Your task to perform on an android device: uninstall "Roku - Official Remote Control" Image 0: 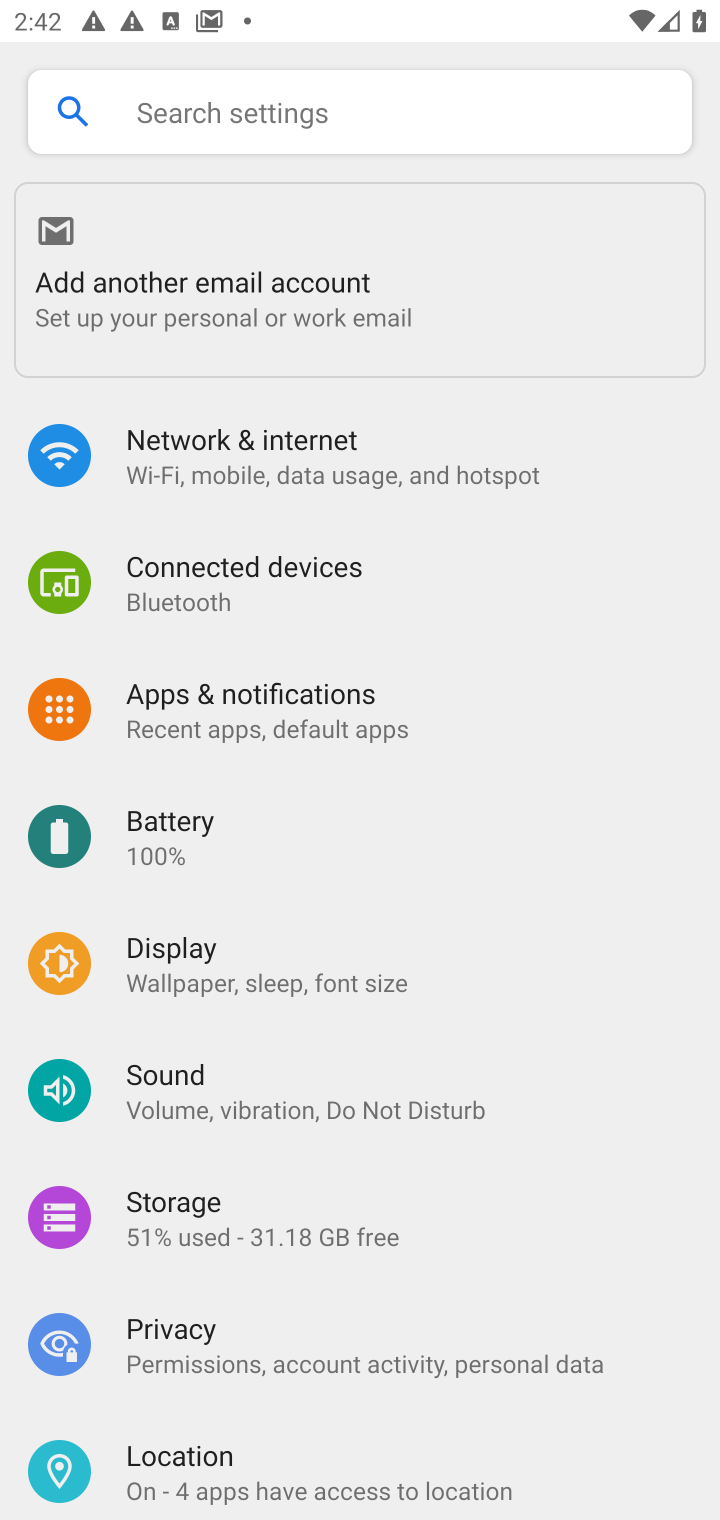
Step 0: press home button
Your task to perform on an android device: uninstall "Roku - Official Remote Control" Image 1: 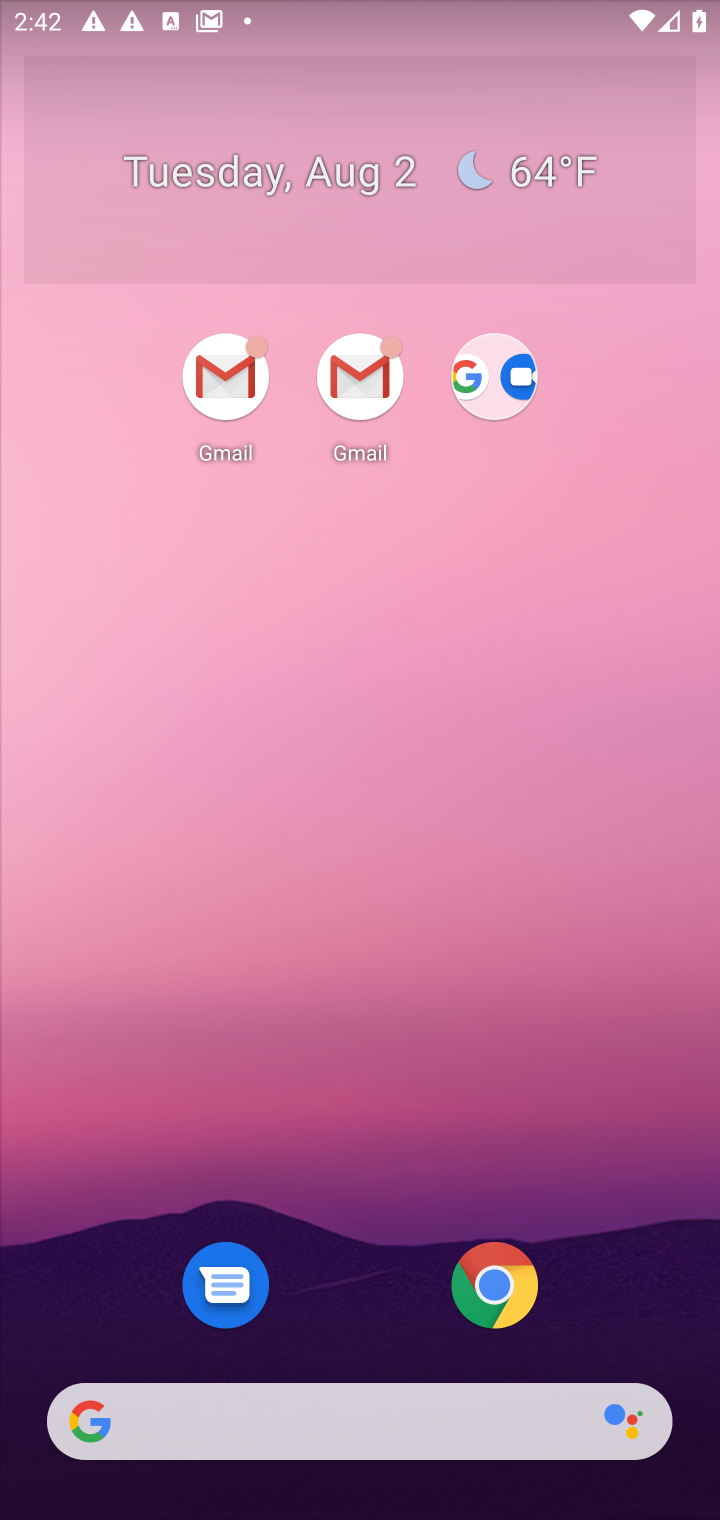
Step 1: drag from (565, 1106) to (552, 94)
Your task to perform on an android device: uninstall "Roku - Official Remote Control" Image 2: 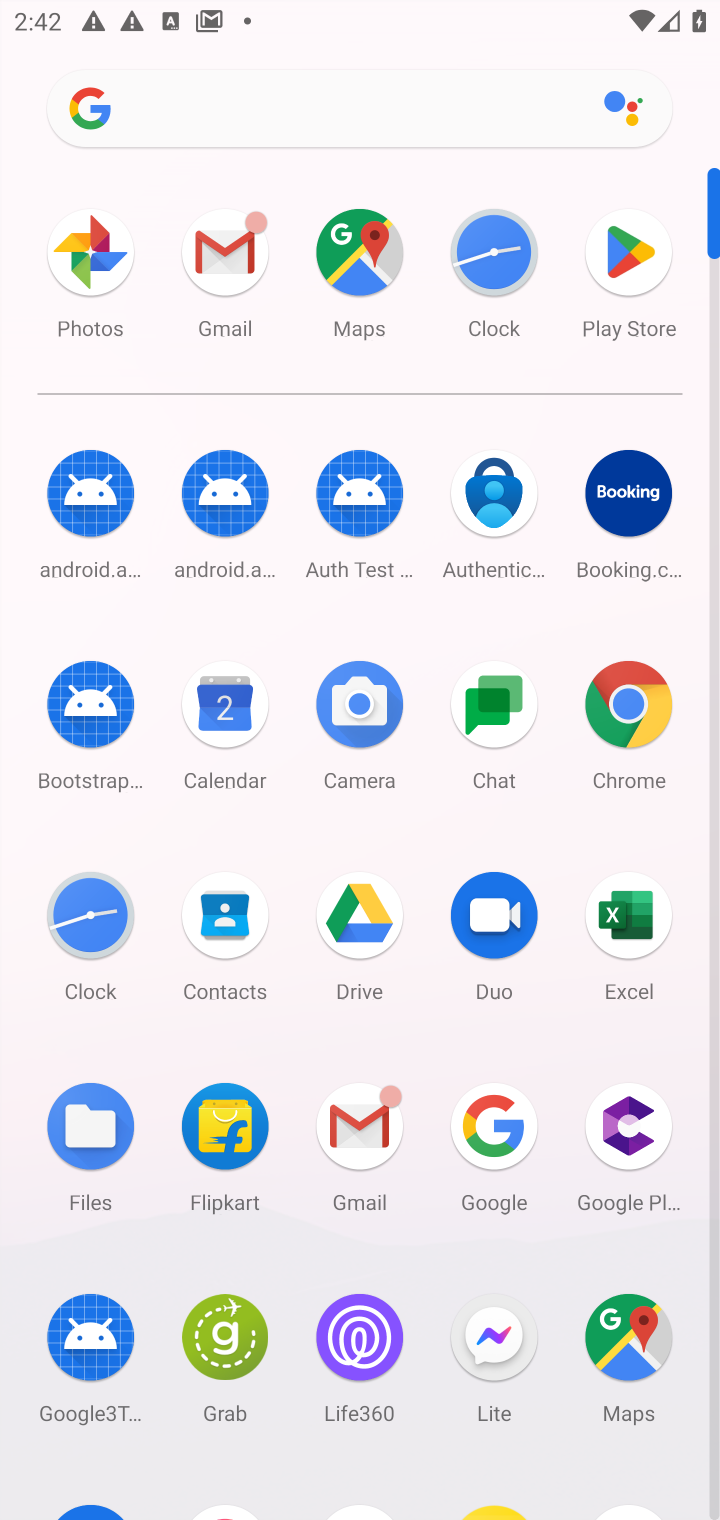
Step 2: drag from (539, 1239) to (652, 355)
Your task to perform on an android device: uninstall "Roku - Official Remote Control" Image 3: 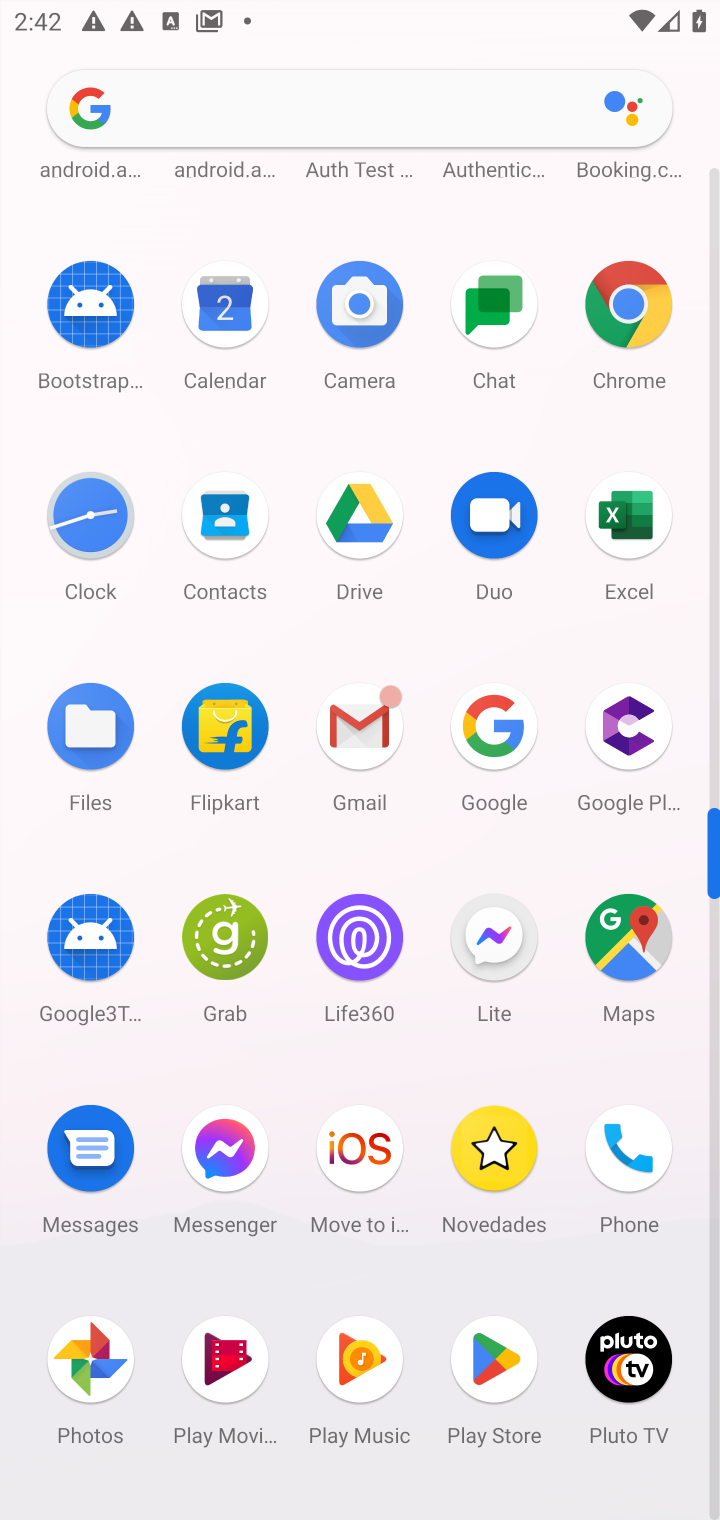
Step 3: click (459, 1363)
Your task to perform on an android device: uninstall "Roku - Official Remote Control" Image 4: 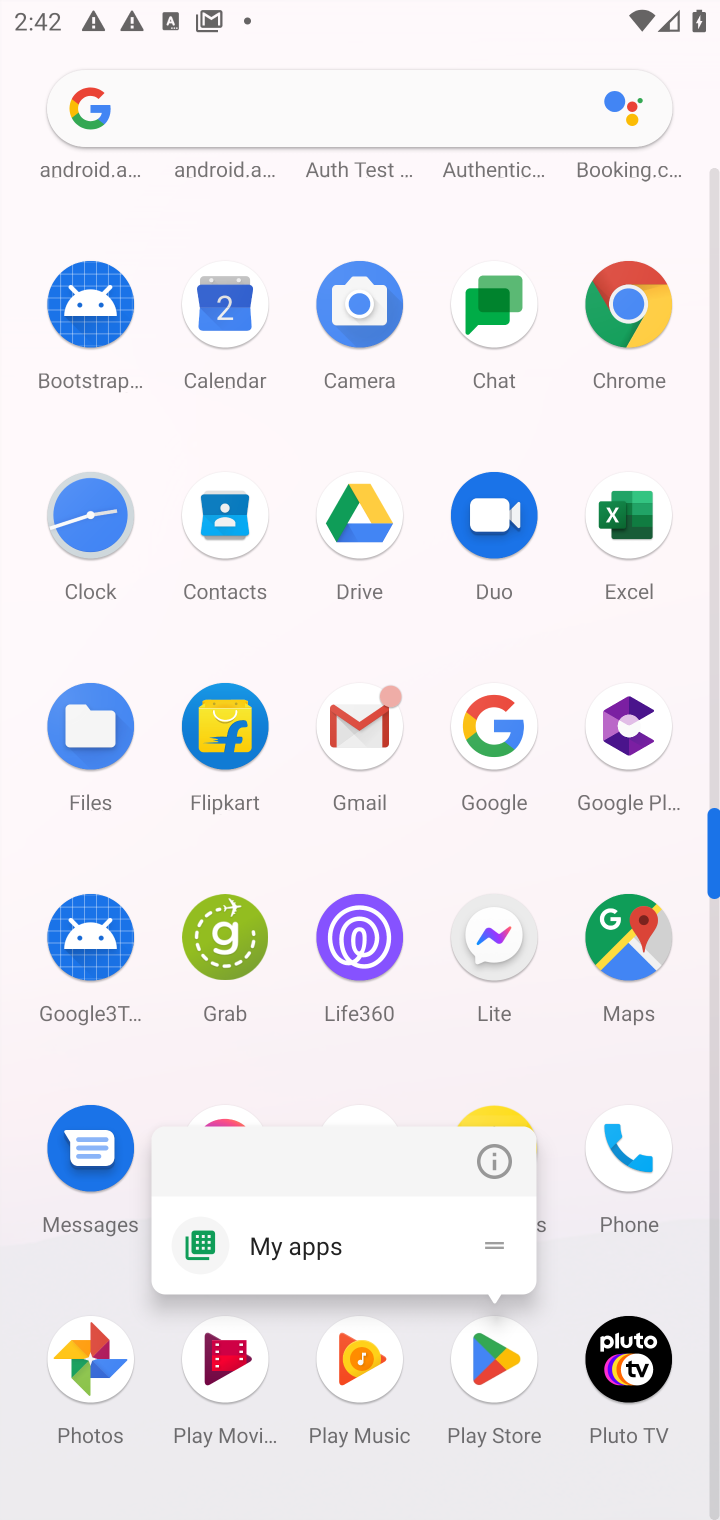
Step 4: click (481, 1365)
Your task to perform on an android device: uninstall "Roku - Official Remote Control" Image 5: 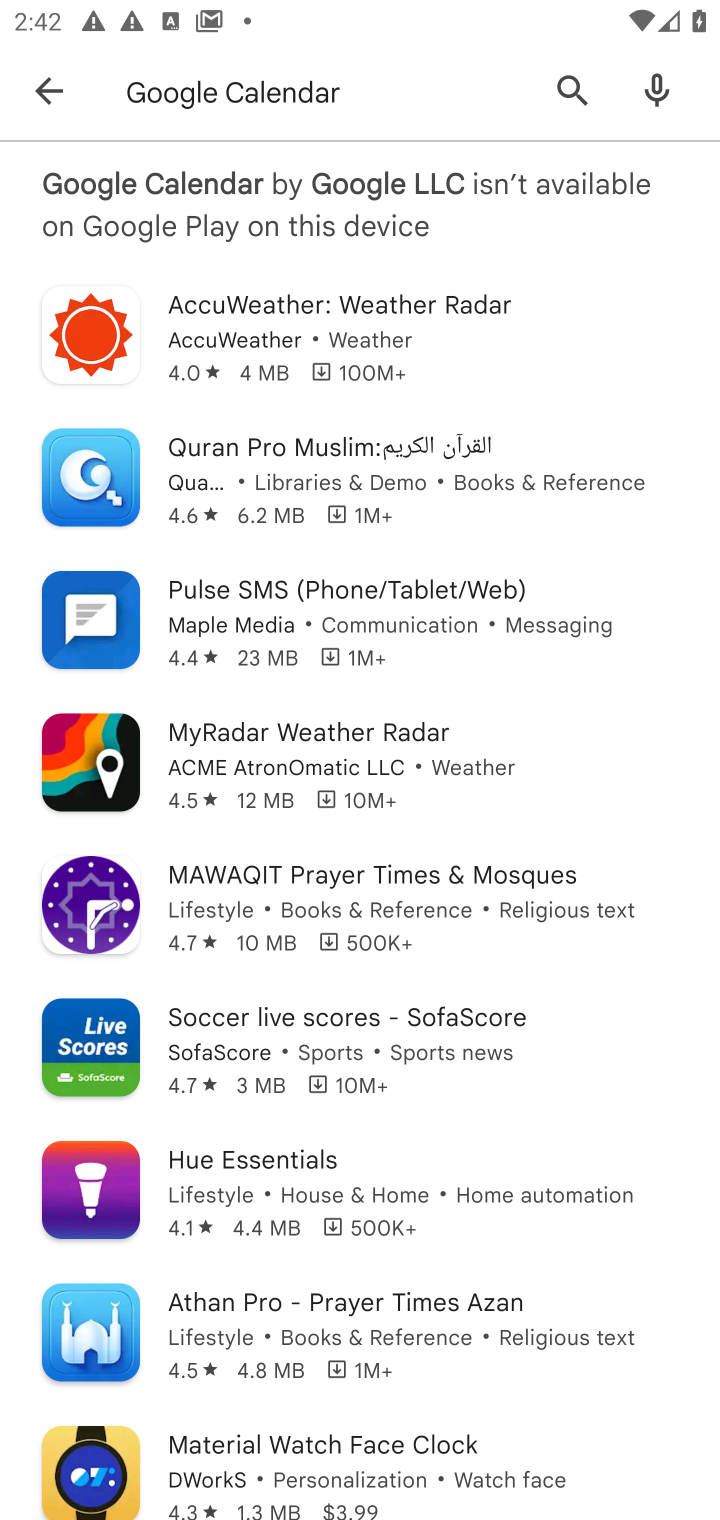
Step 5: click (308, 102)
Your task to perform on an android device: uninstall "Roku - Official Remote Control" Image 6: 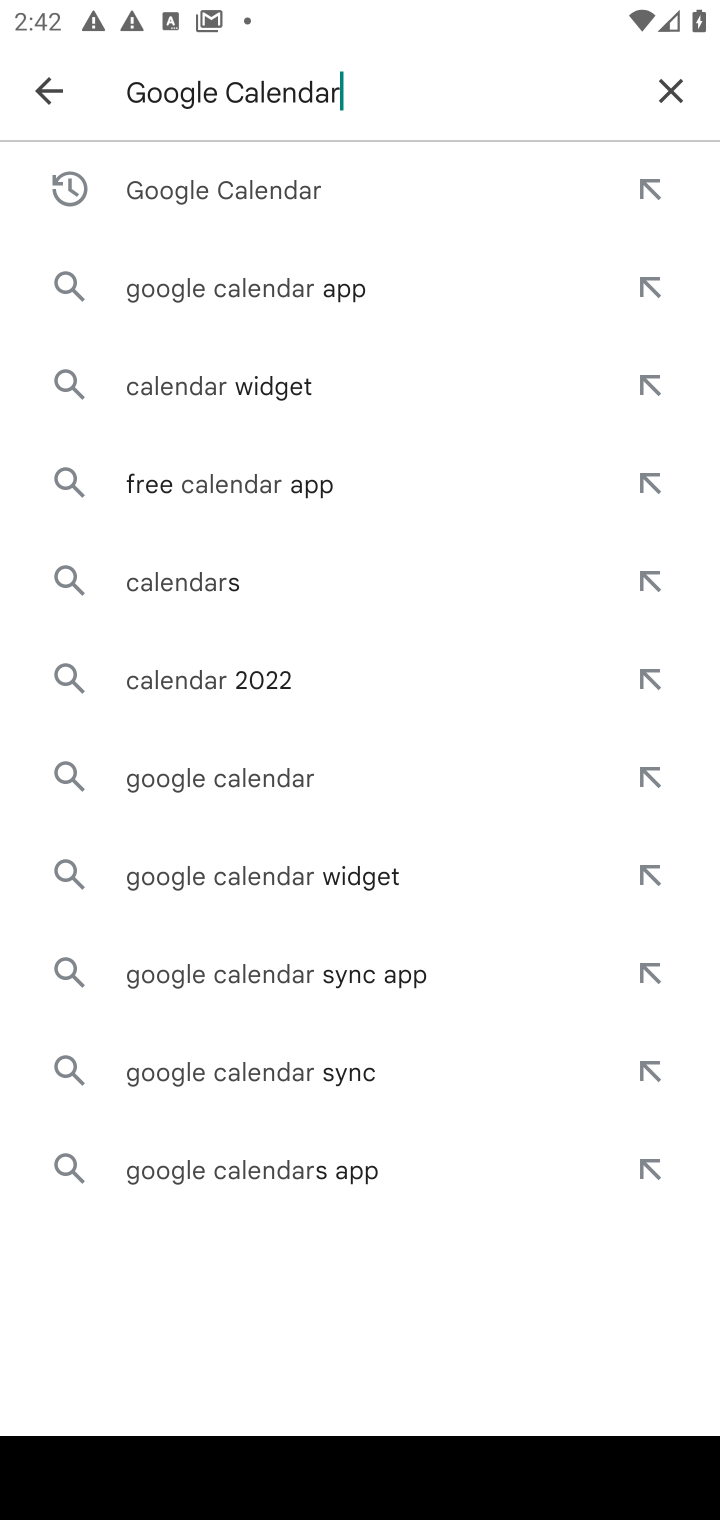
Step 6: click (676, 74)
Your task to perform on an android device: uninstall "Roku - Official Remote Control" Image 7: 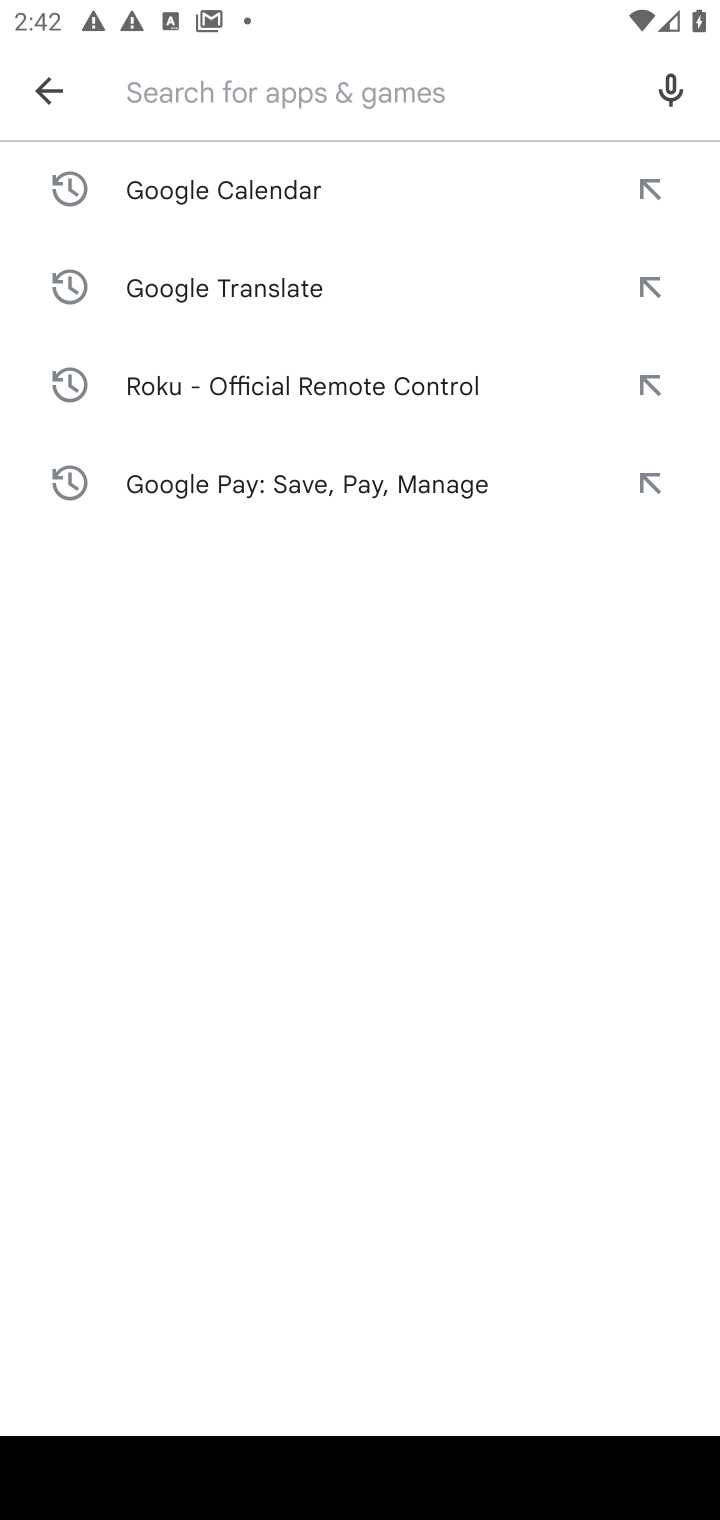
Step 7: type "Roku - Official Remote Control"
Your task to perform on an android device: uninstall "Roku - Official Remote Control" Image 8: 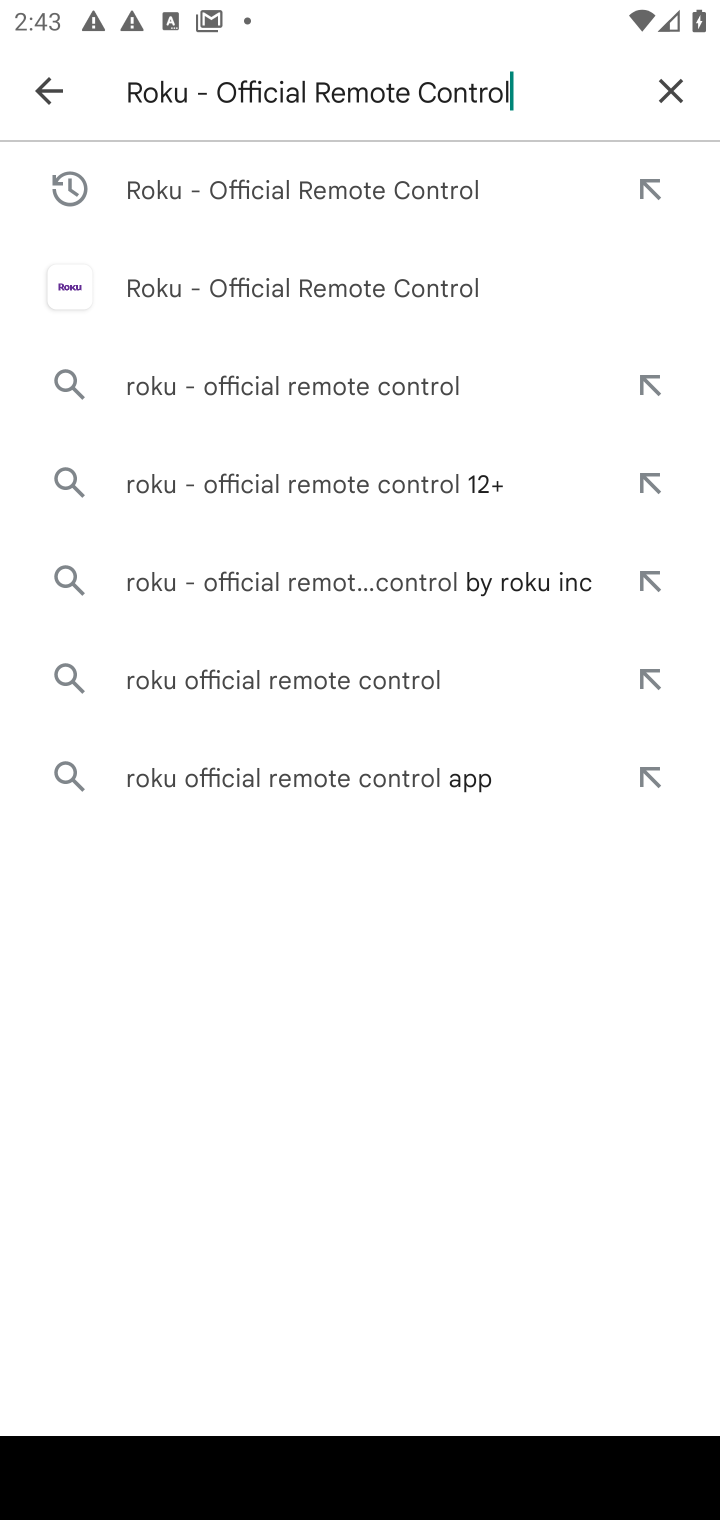
Step 8: press enter
Your task to perform on an android device: uninstall "Roku - Official Remote Control" Image 9: 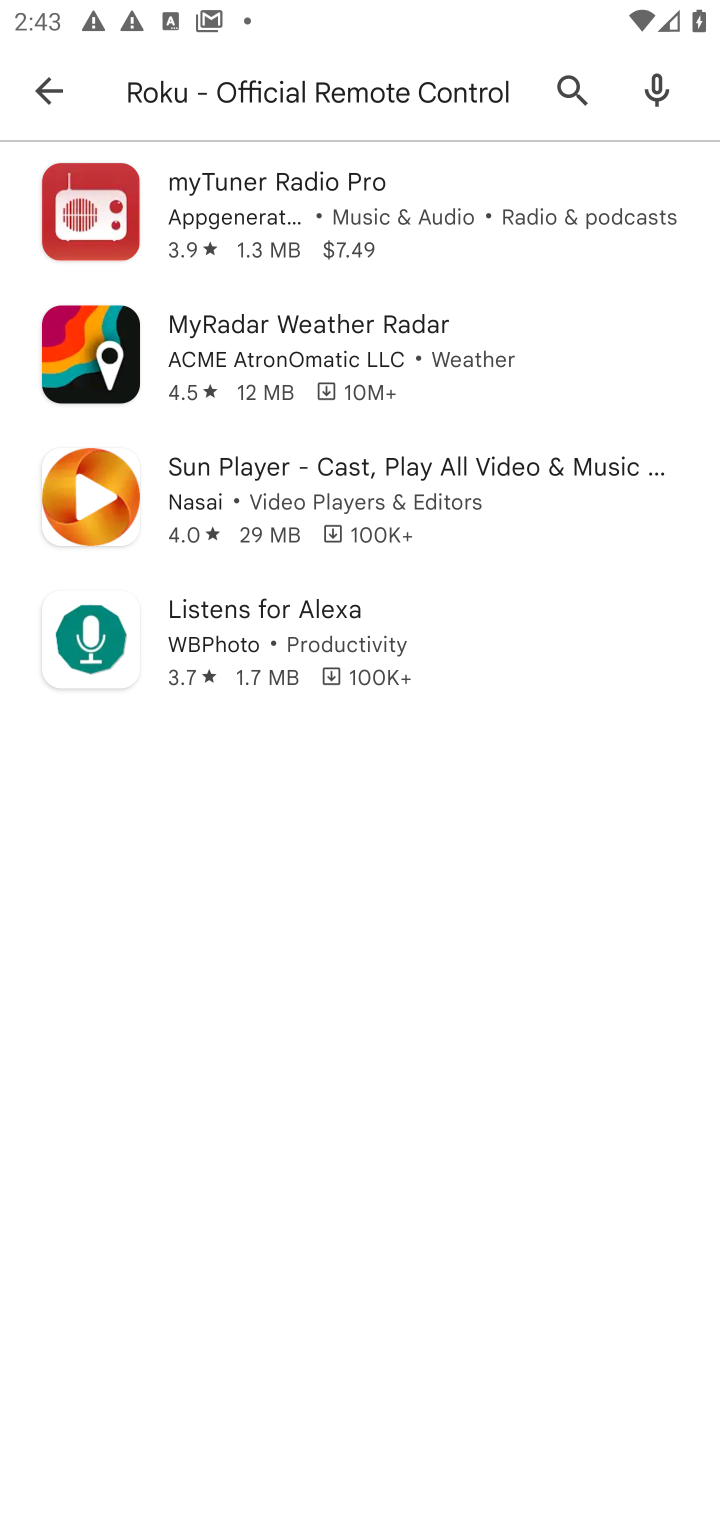
Step 9: click (503, 98)
Your task to perform on an android device: uninstall "Roku - Official Remote Control" Image 10: 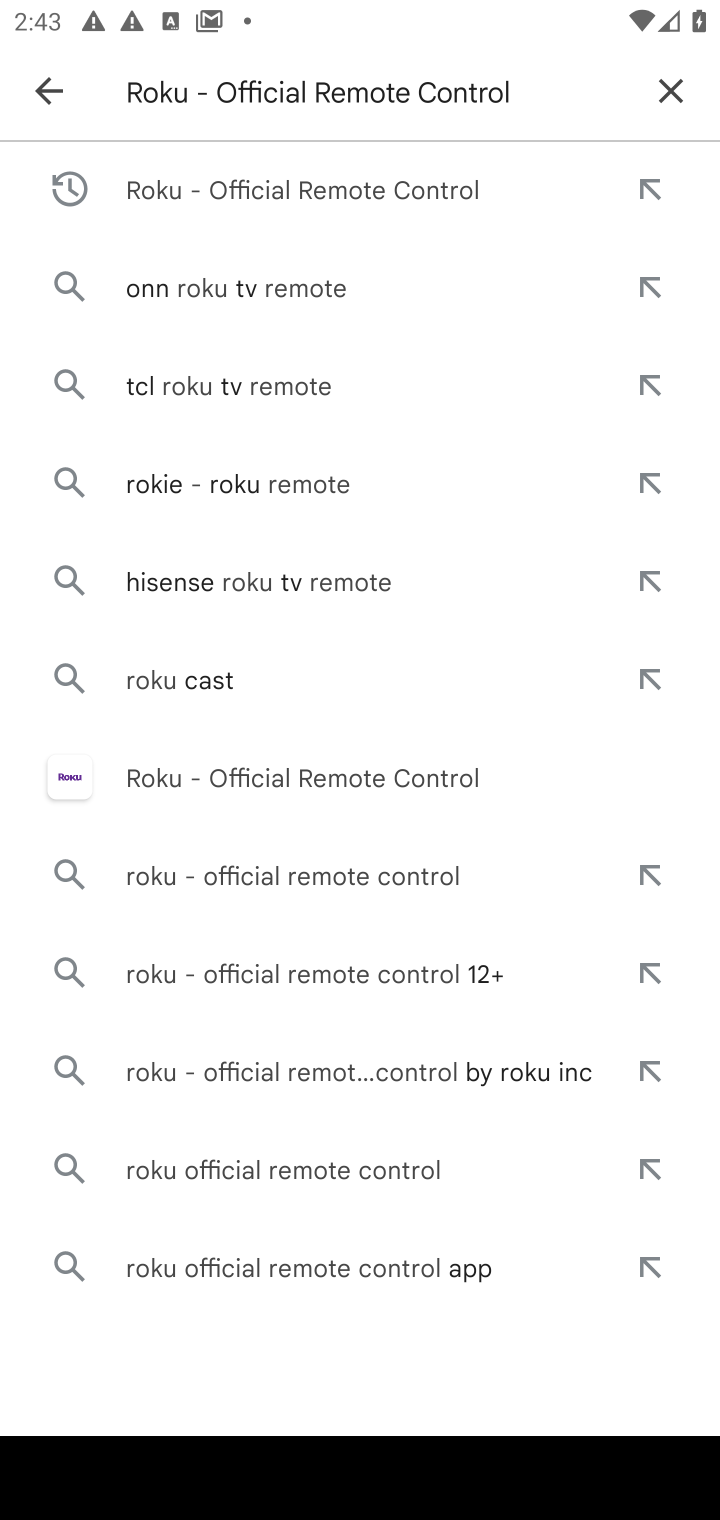
Step 10: click (337, 202)
Your task to perform on an android device: uninstall "Roku - Official Remote Control" Image 11: 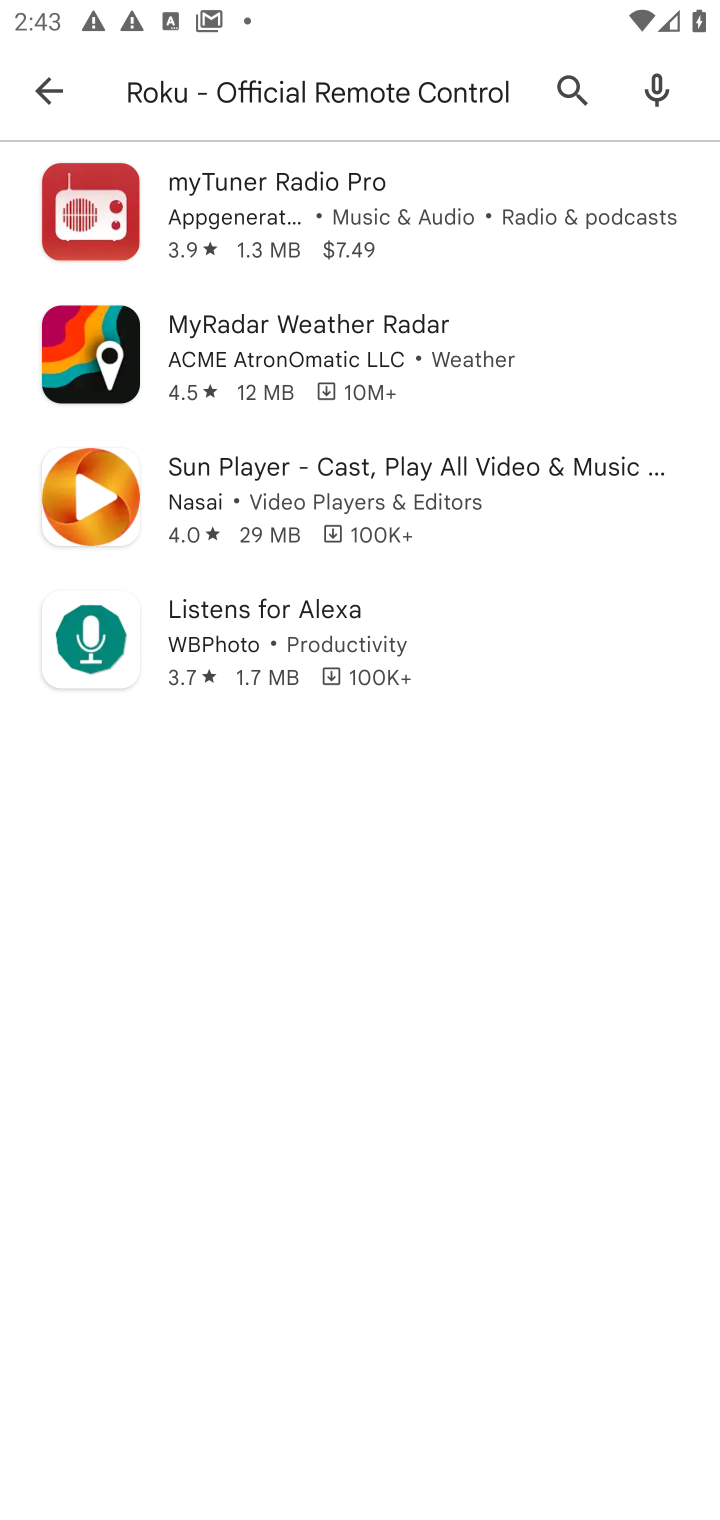
Step 11: task complete